Your task to perform on an android device: Open display settings Image 0: 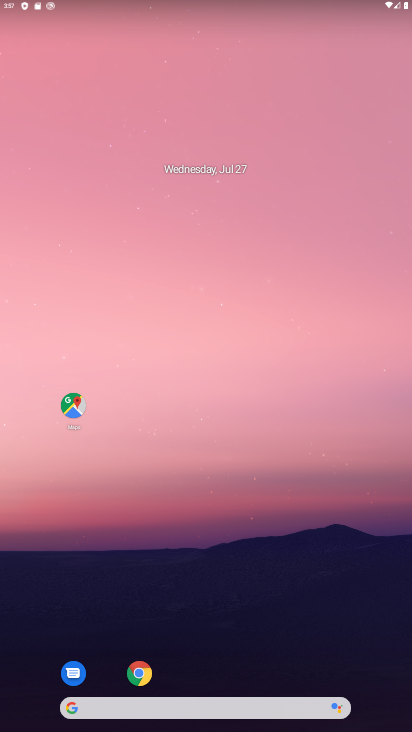
Step 0: press home button
Your task to perform on an android device: Open display settings Image 1: 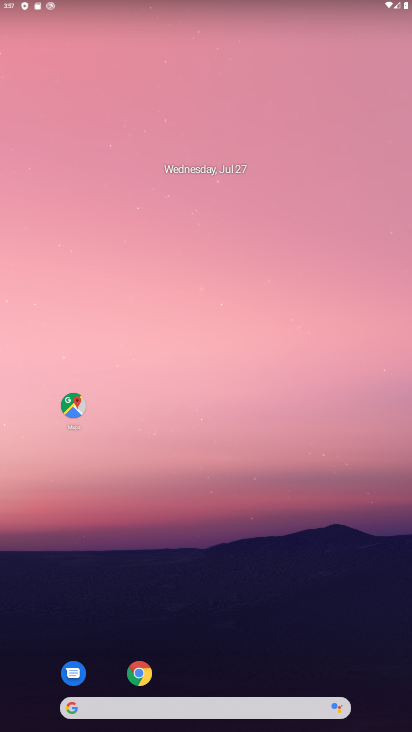
Step 1: drag from (318, 606) to (319, 169)
Your task to perform on an android device: Open display settings Image 2: 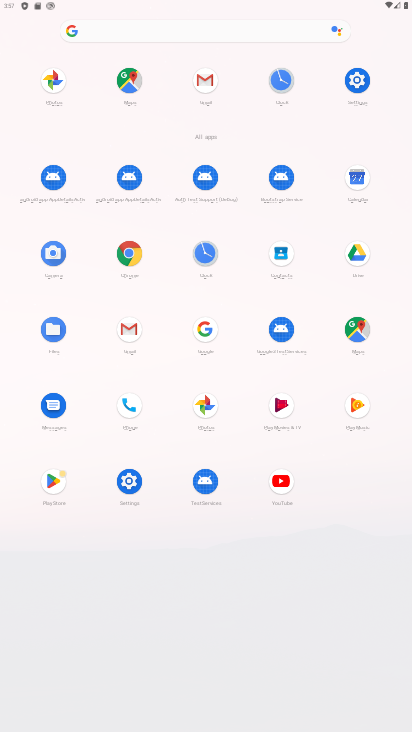
Step 2: click (134, 479)
Your task to perform on an android device: Open display settings Image 3: 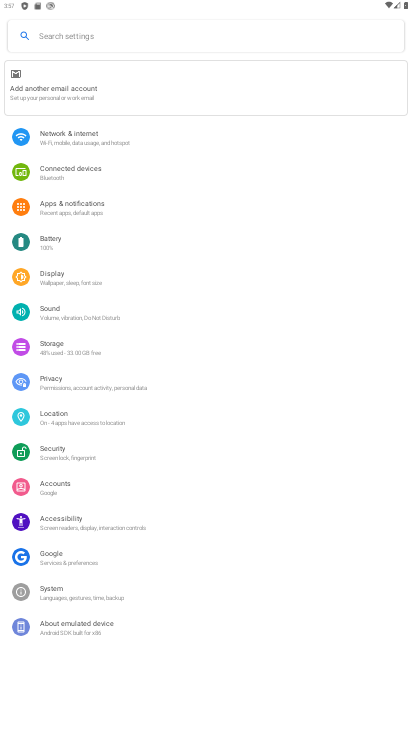
Step 3: drag from (230, 458) to (253, 332)
Your task to perform on an android device: Open display settings Image 4: 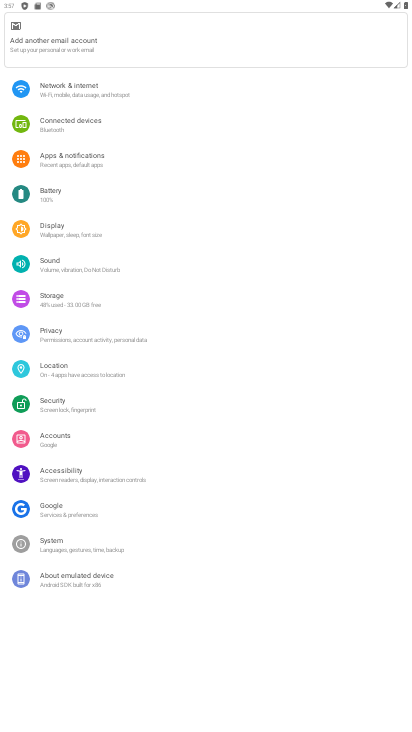
Step 4: click (93, 223)
Your task to perform on an android device: Open display settings Image 5: 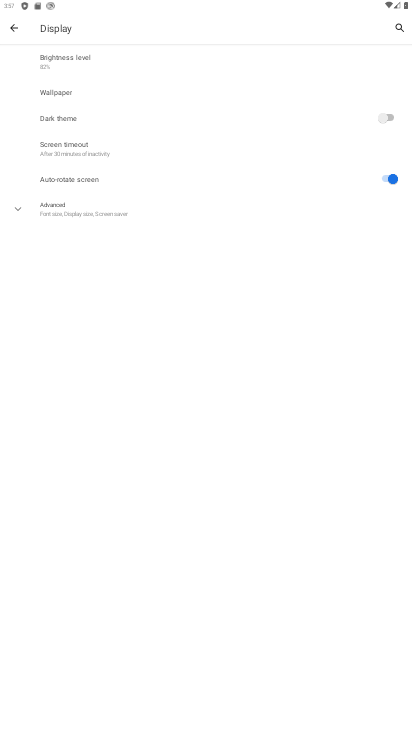
Step 5: task complete